Your task to perform on an android device: When is my next appointment? Image 0: 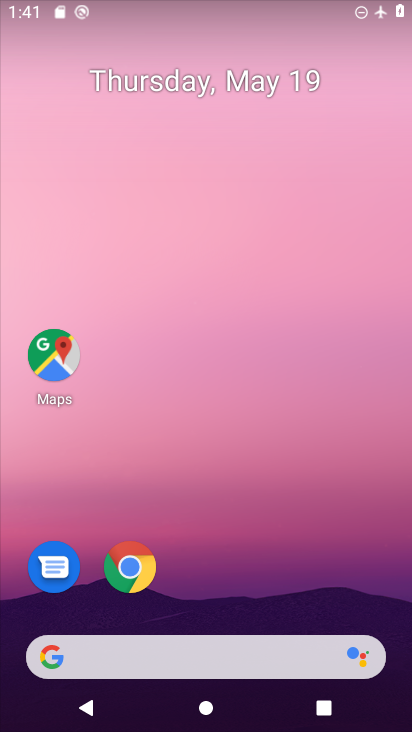
Step 0: drag from (270, 551) to (214, 40)
Your task to perform on an android device: When is my next appointment? Image 1: 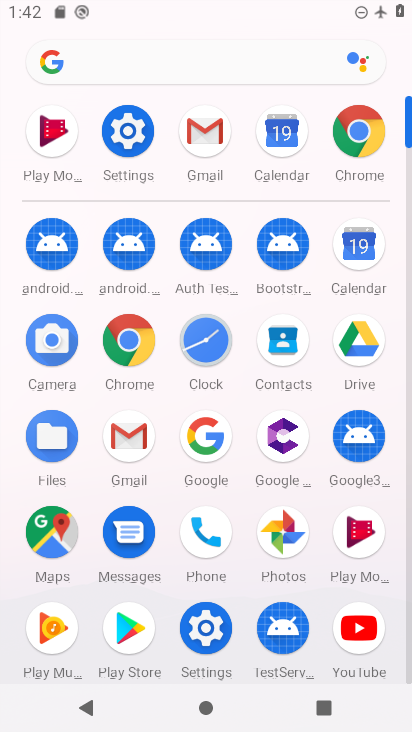
Step 1: click (277, 129)
Your task to perform on an android device: When is my next appointment? Image 2: 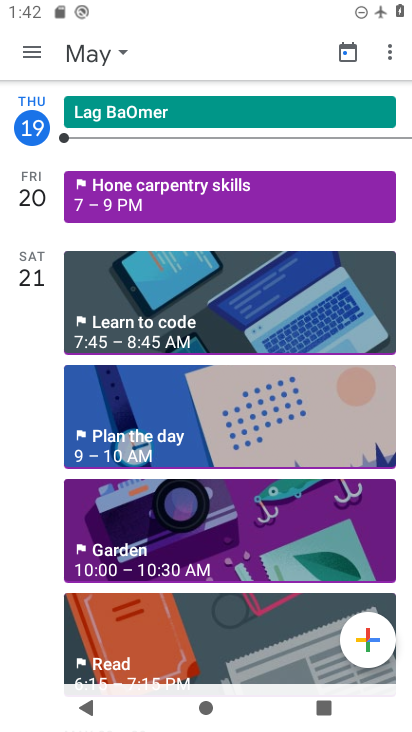
Step 2: task complete